Your task to perform on an android device: change notifications settings Image 0: 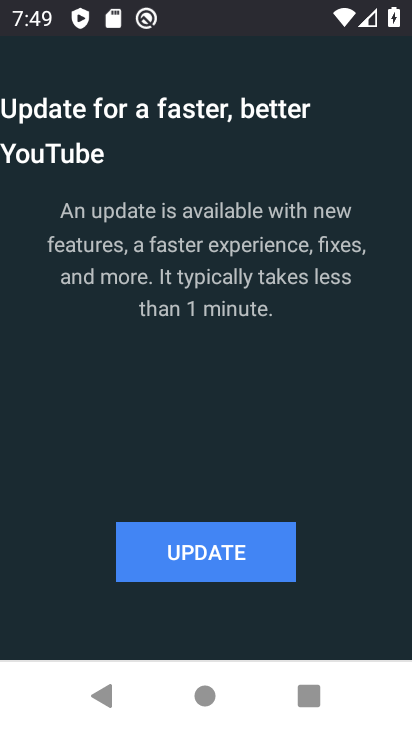
Step 0: press home button
Your task to perform on an android device: change notifications settings Image 1: 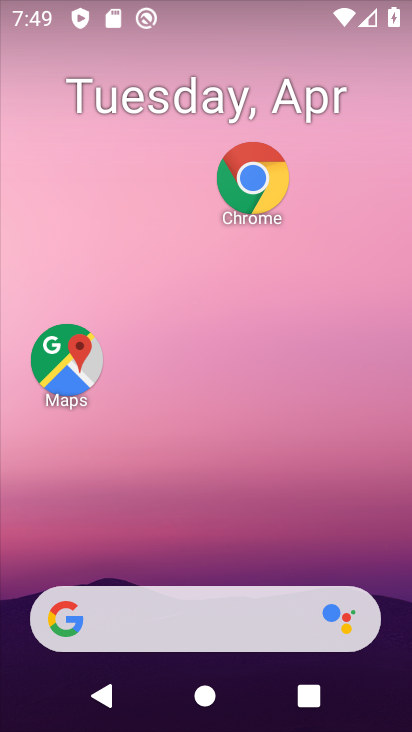
Step 1: drag from (202, 721) to (203, 34)
Your task to perform on an android device: change notifications settings Image 2: 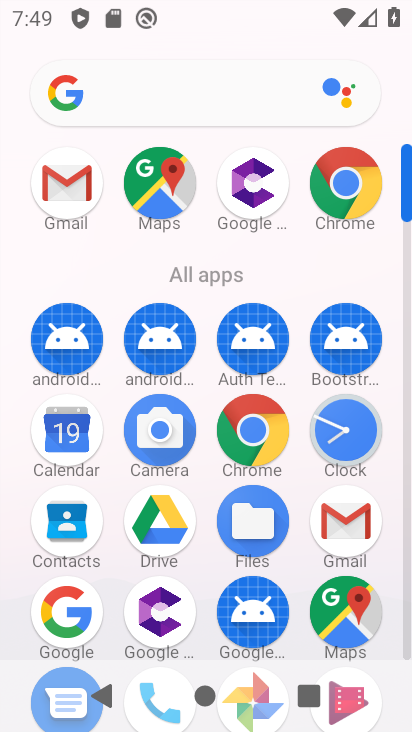
Step 2: drag from (204, 513) to (182, 160)
Your task to perform on an android device: change notifications settings Image 3: 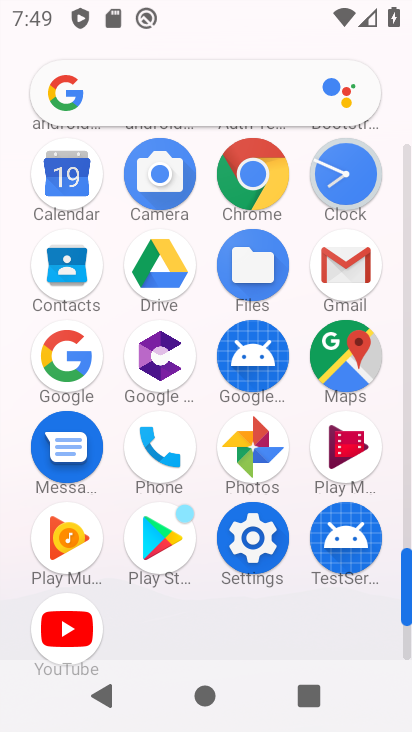
Step 3: click (253, 545)
Your task to perform on an android device: change notifications settings Image 4: 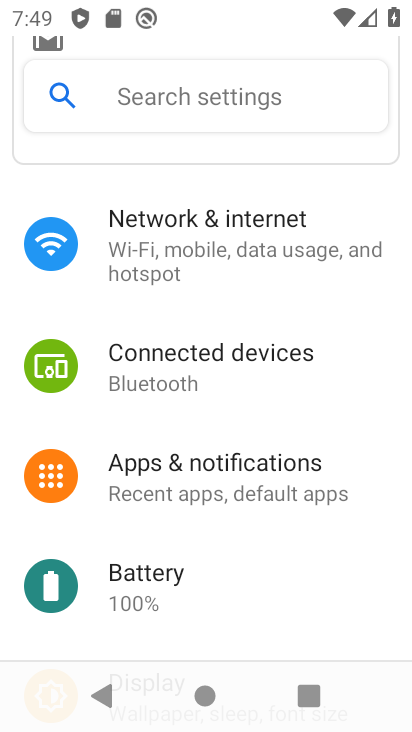
Step 4: click (181, 471)
Your task to perform on an android device: change notifications settings Image 5: 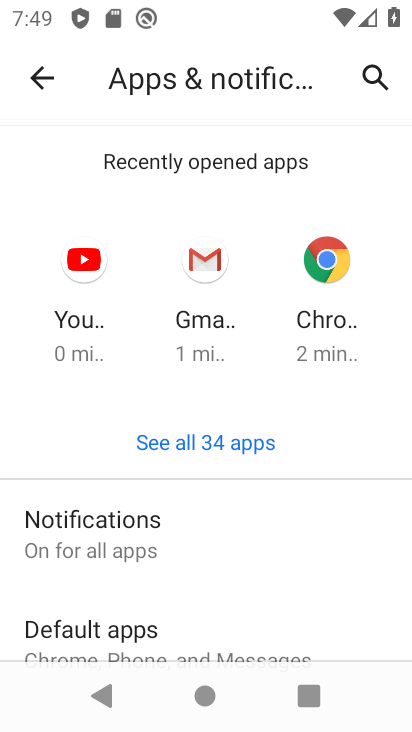
Step 5: click (109, 532)
Your task to perform on an android device: change notifications settings Image 6: 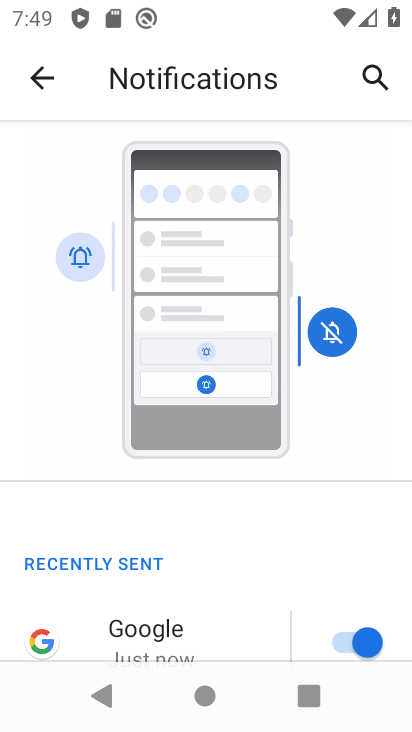
Step 6: drag from (224, 635) to (230, 182)
Your task to perform on an android device: change notifications settings Image 7: 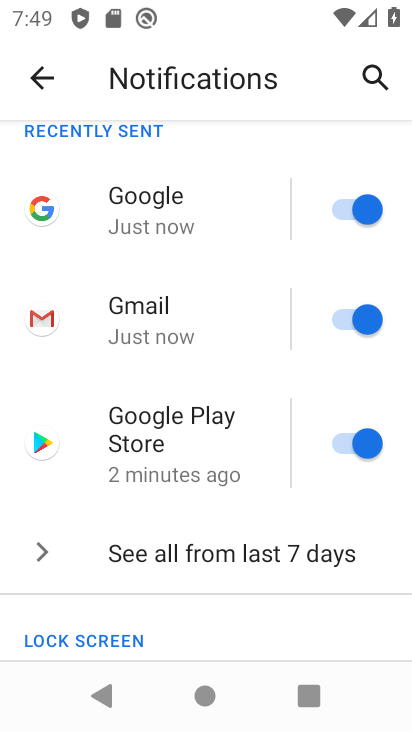
Step 7: drag from (220, 626) to (223, 164)
Your task to perform on an android device: change notifications settings Image 8: 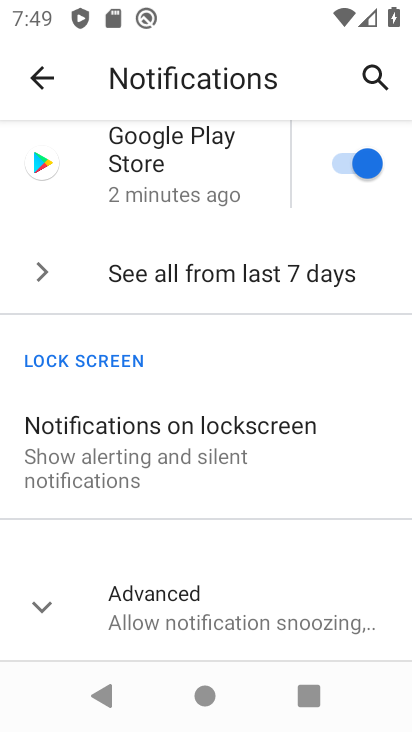
Step 8: click (176, 610)
Your task to perform on an android device: change notifications settings Image 9: 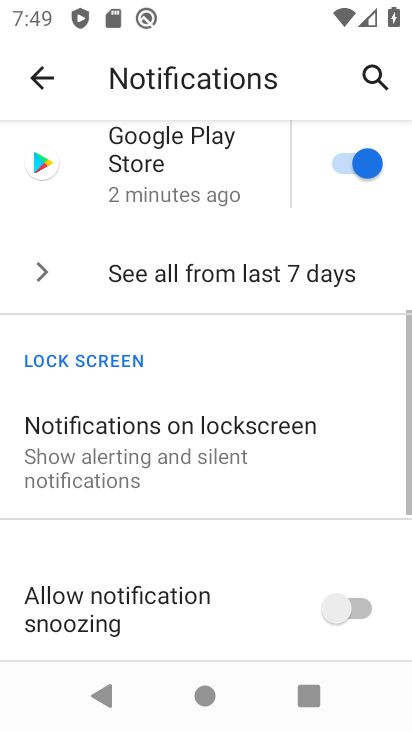
Step 9: drag from (234, 624) to (234, 490)
Your task to perform on an android device: change notifications settings Image 10: 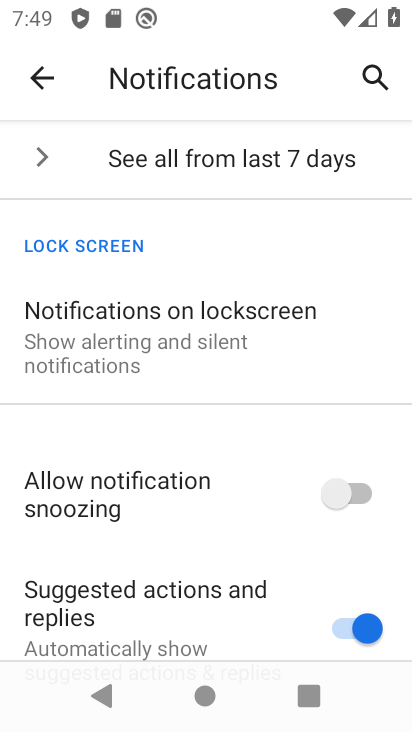
Step 10: drag from (281, 645) to (272, 494)
Your task to perform on an android device: change notifications settings Image 11: 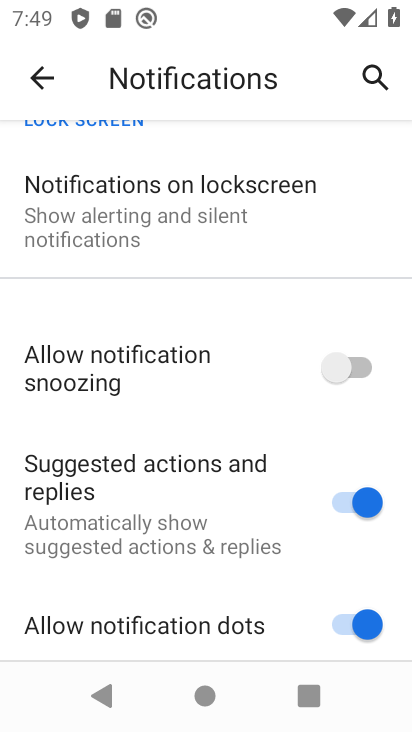
Step 11: click (352, 366)
Your task to perform on an android device: change notifications settings Image 12: 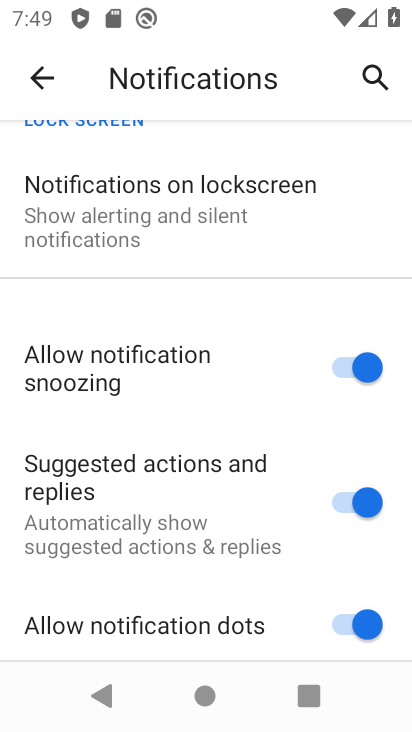
Step 12: task complete